Your task to perform on an android device: change timer sound Image 0: 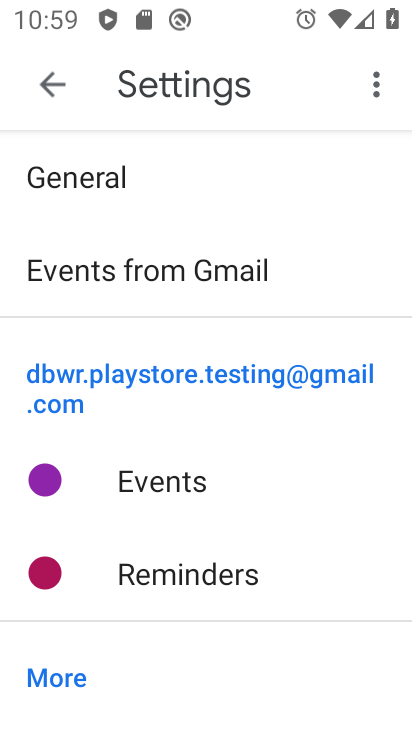
Step 0: press home button
Your task to perform on an android device: change timer sound Image 1: 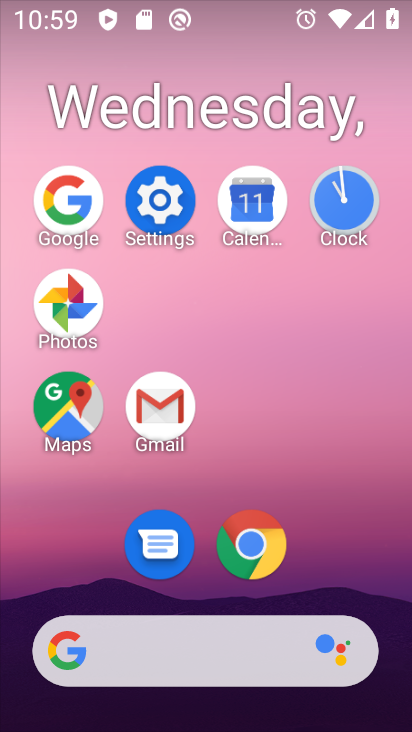
Step 1: click (351, 214)
Your task to perform on an android device: change timer sound Image 2: 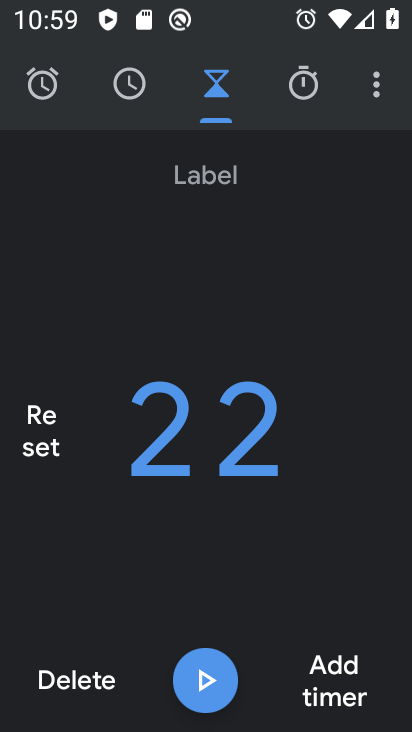
Step 2: click (368, 90)
Your task to perform on an android device: change timer sound Image 3: 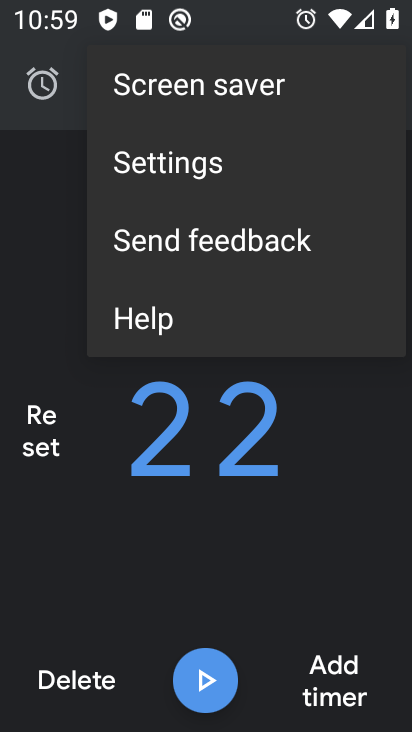
Step 3: click (227, 168)
Your task to perform on an android device: change timer sound Image 4: 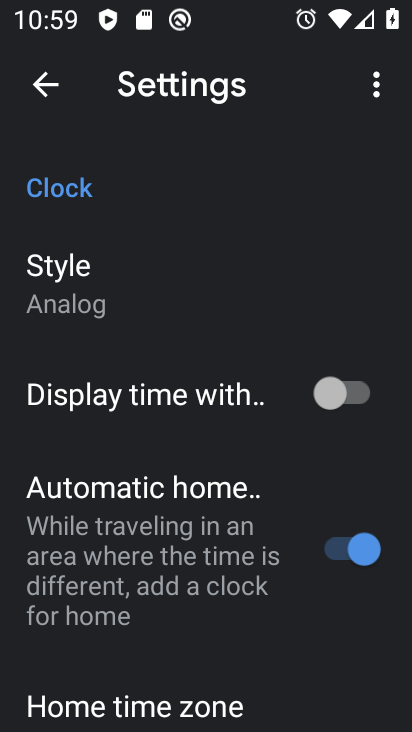
Step 4: drag from (191, 642) to (208, 116)
Your task to perform on an android device: change timer sound Image 5: 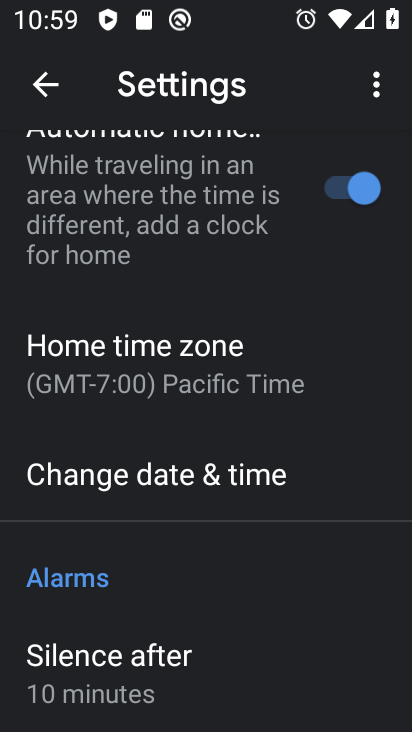
Step 5: drag from (233, 568) to (243, 229)
Your task to perform on an android device: change timer sound Image 6: 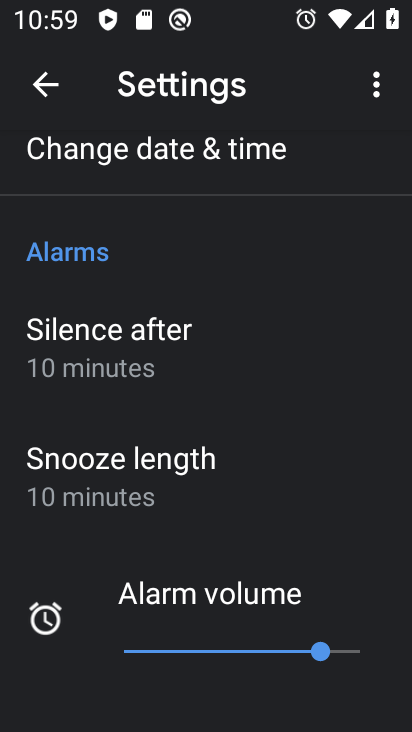
Step 6: drag from (247, 523) to (272, 188)
Your task to perform on an android device: change timer sound Image 7: 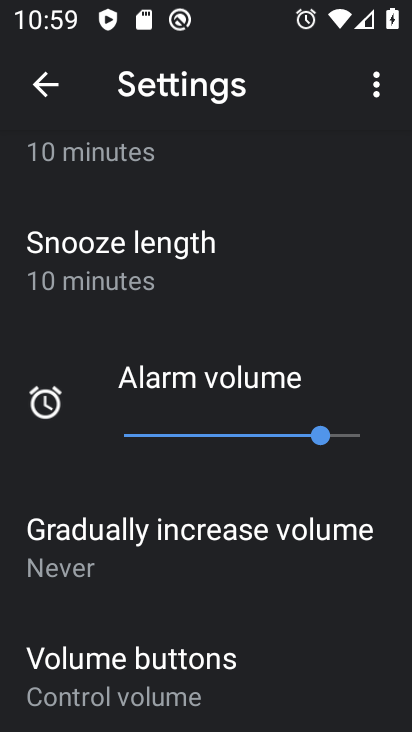
Step 7: drag from (201, 586) to (213, 236)
Your task to perform on an android device: change timer sound Image 8: 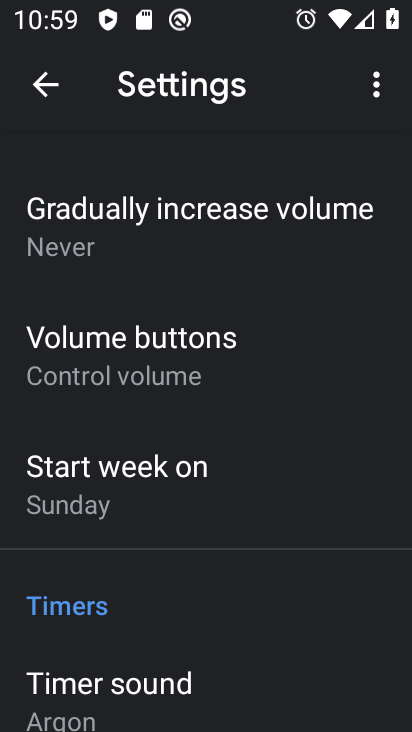
Step 8: click (204, 710)
Your task to perform on an android device: change timer sound Image 9: 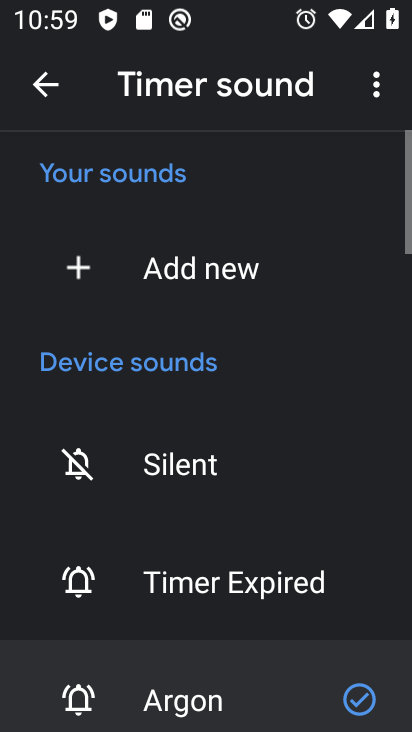
Step 9: click (197, 596)
Your task to perform on an android device: change timer sound Image 10: 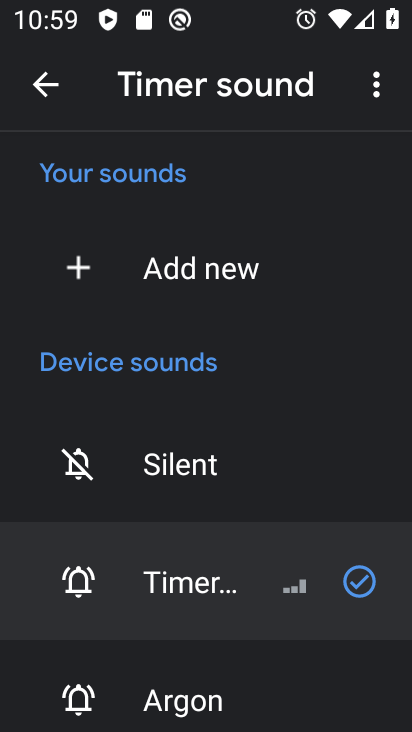
Step 10: task complete